Your task to perform on an android device: change the clock style Image 0: 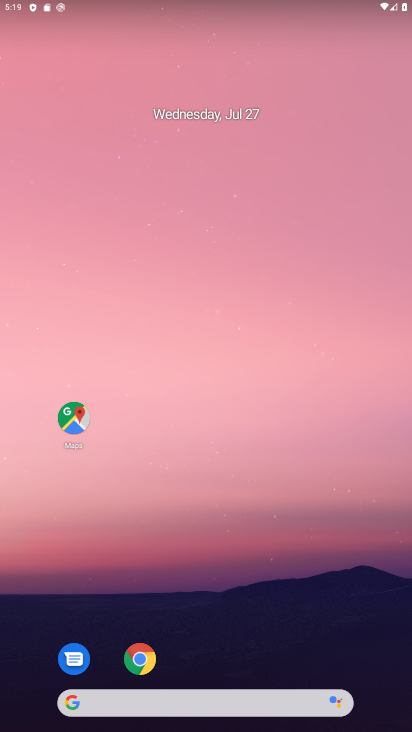
Step 0: drag from (243, 652) to (278, 94)
Your task to perform on an android device: change the clock style Image 1: 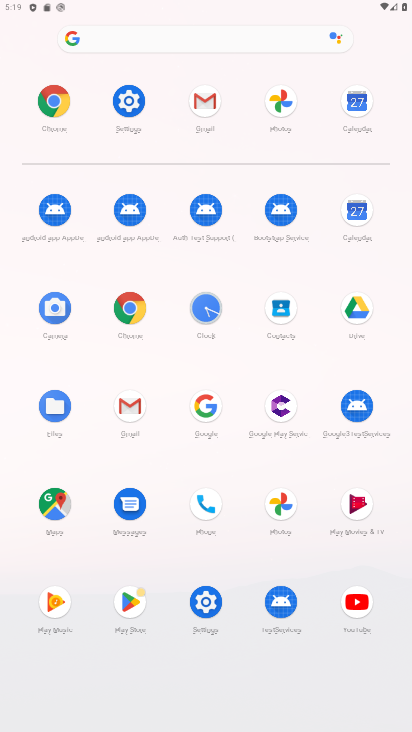
Step 1: click (207, 302)
Your task to perform on an android device: change the clock style Image 2: 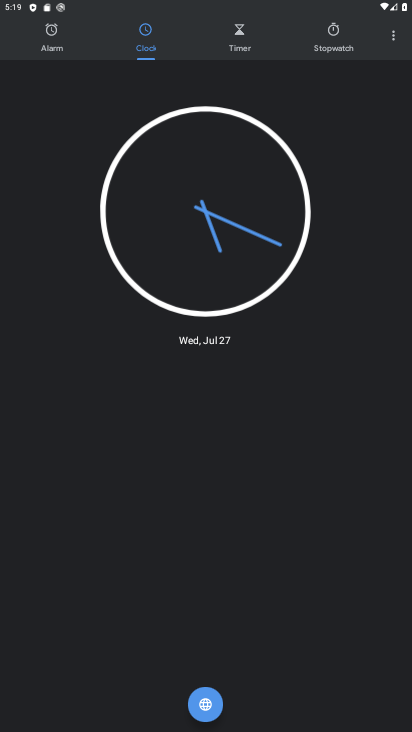
Step 2: click (389, 43)
Your task to perform on an android device: change the clock style Image 3: 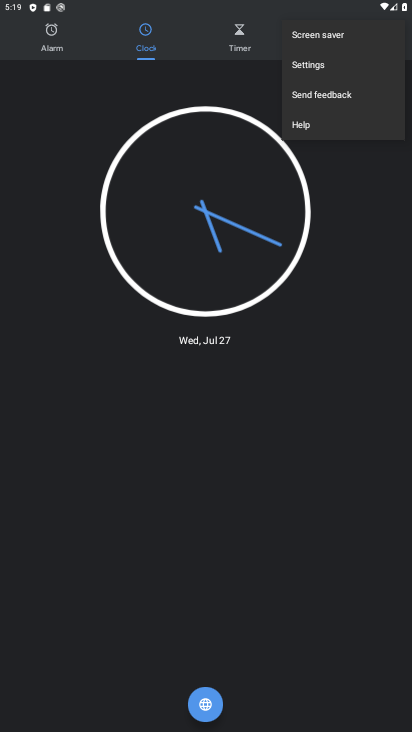
Step 3: click (311, 65)
Your task to perform on an android device: change the clock style Image 4: 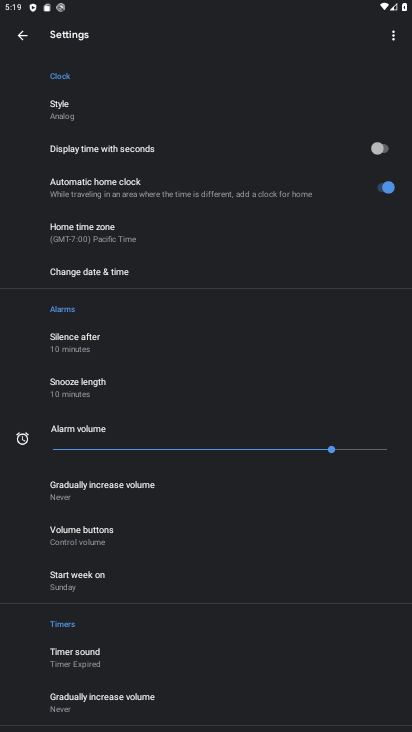
Step 4: click (84, 116)
Your task to perform on an android device: change the clock style Image 5: 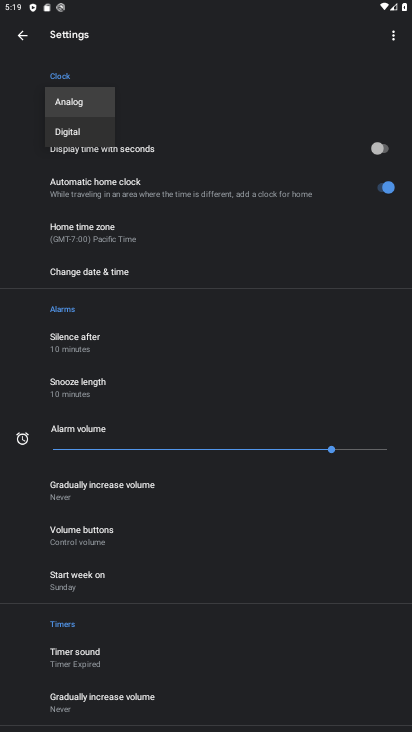
Step 5: click (86, 123)
Your task to perform on an android device: change the clock style Image 6: 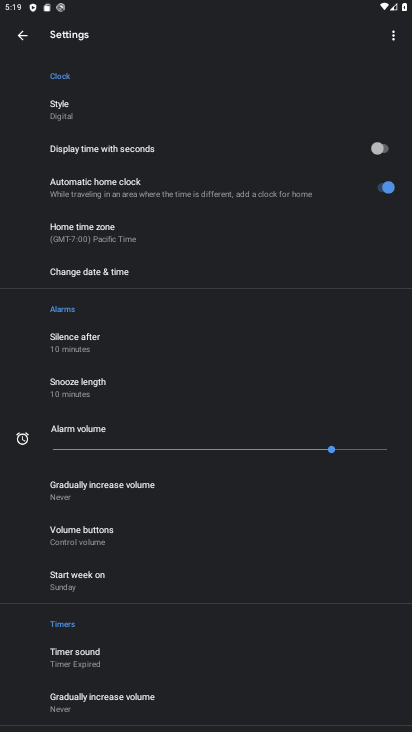
Step 6: task complete